Your task to perform on an android device: Open Google Chrome Image 0: 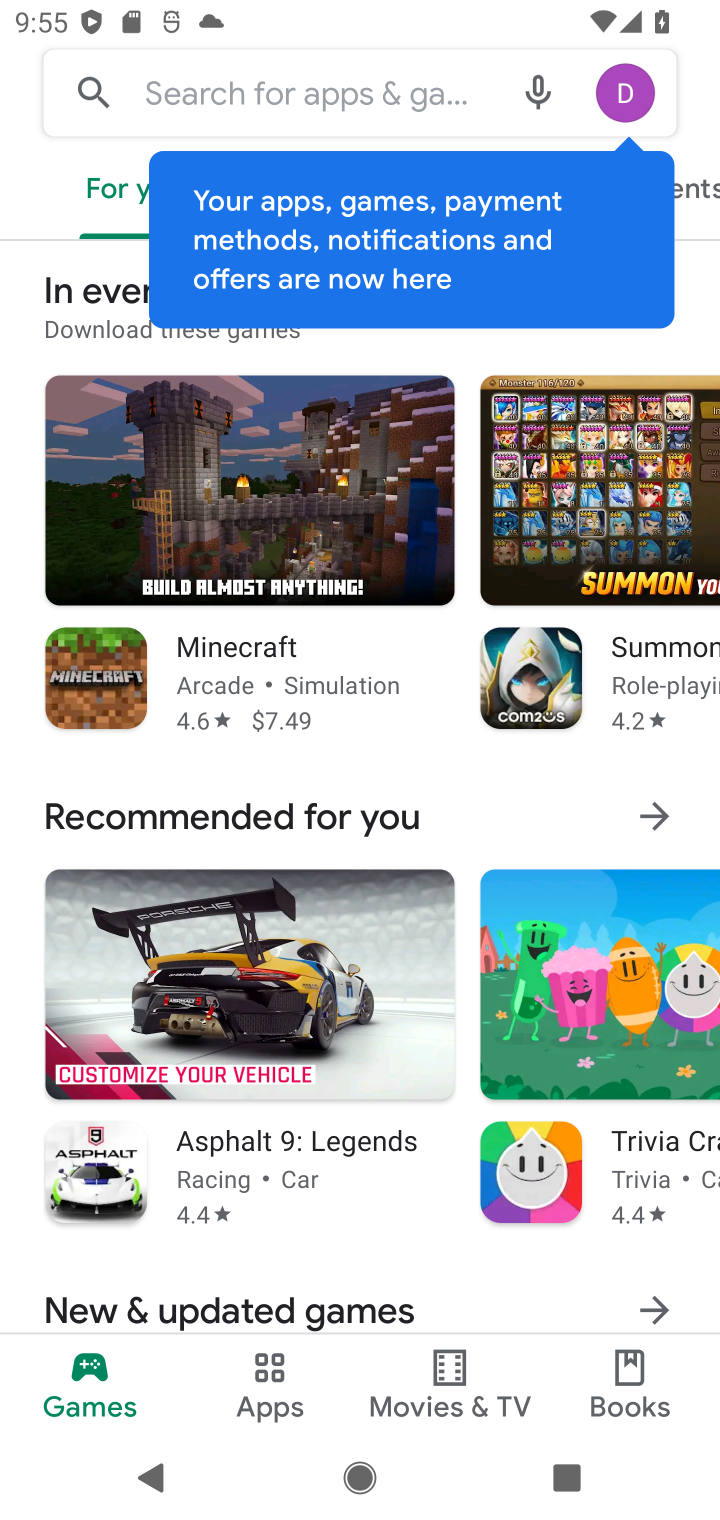
Step 0: press home button
Your task to perform on an android device: Open Google Chrome Image 1: 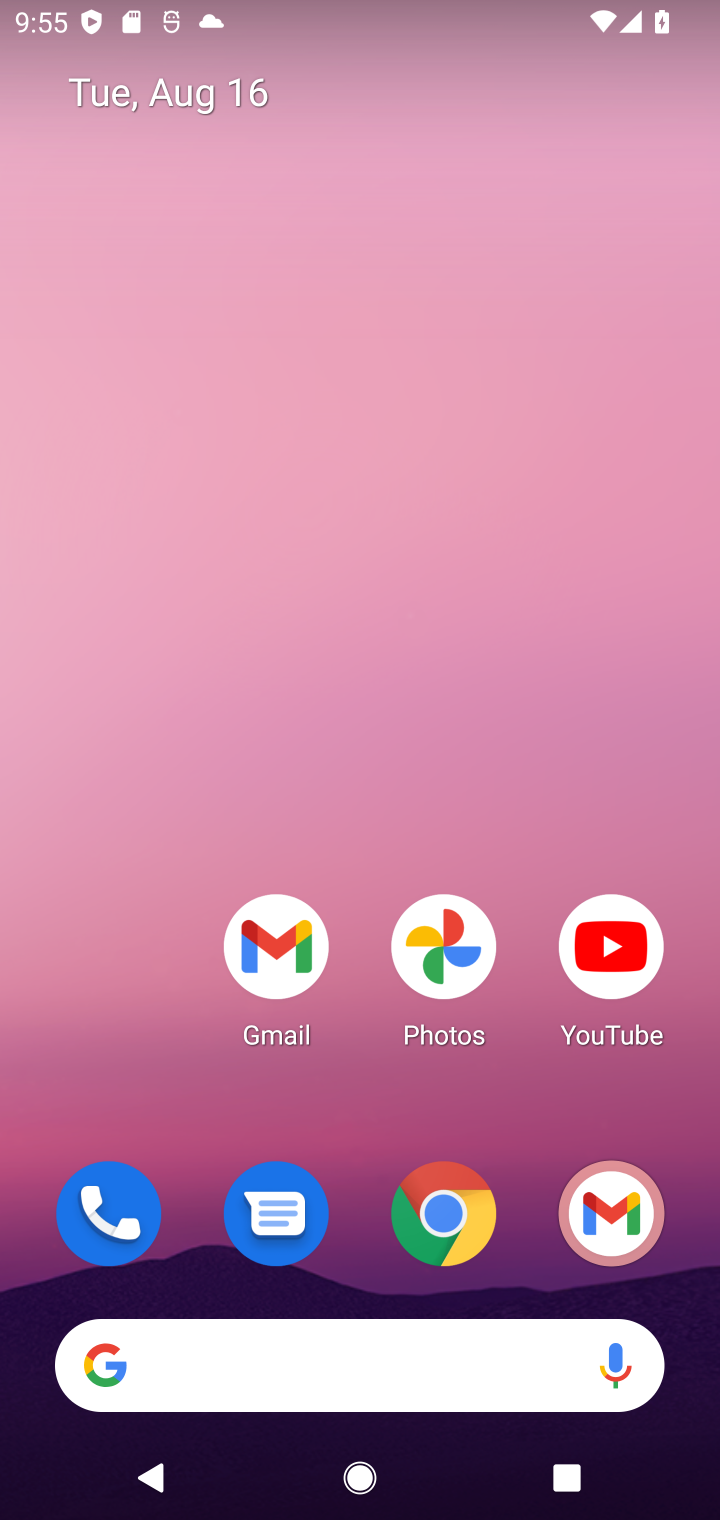
Step 1: drag from (323, 1281) to (386, 121)
Your task to perform on an android device: Open Google Chrome Image 2: 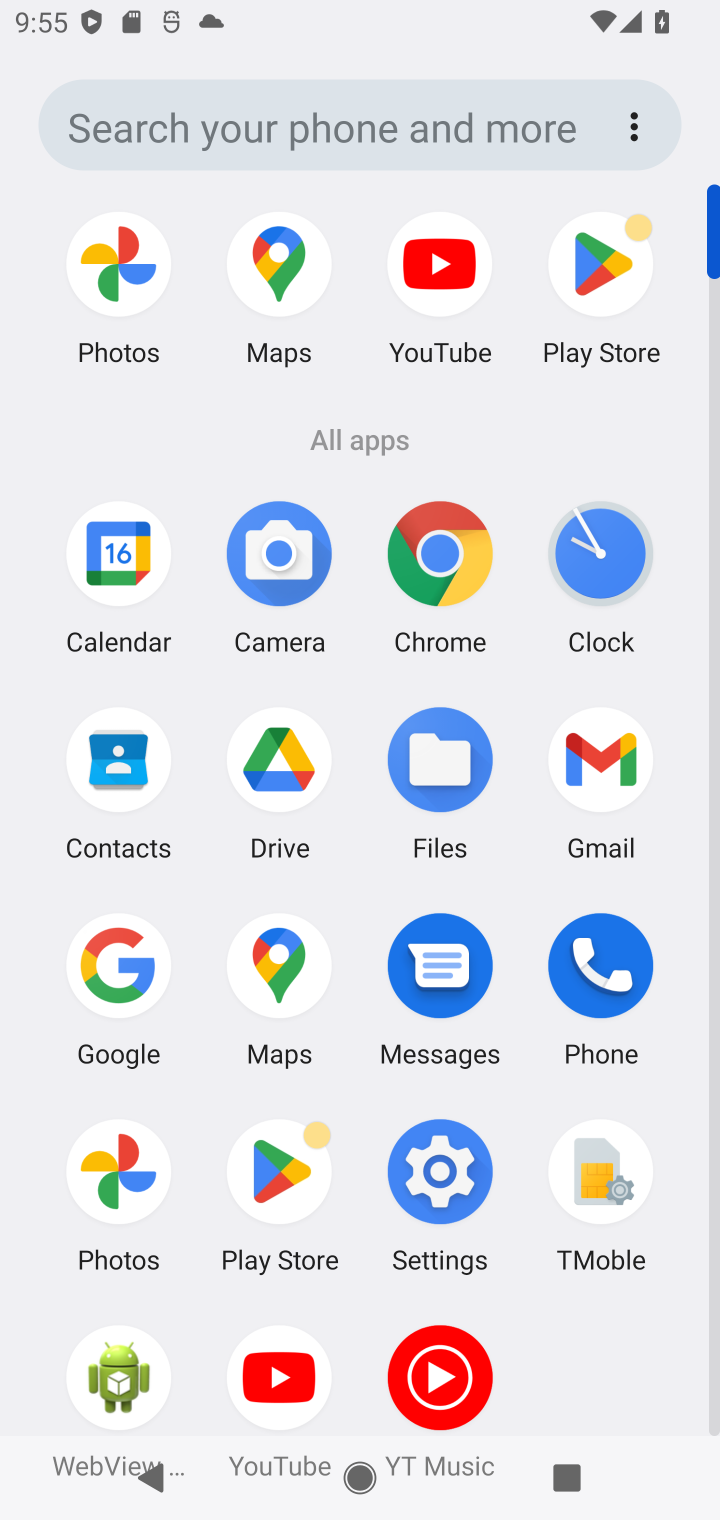
Step 2: click (440, 542)
Your task to perform on an android device: Open Google Chrome Image 3: 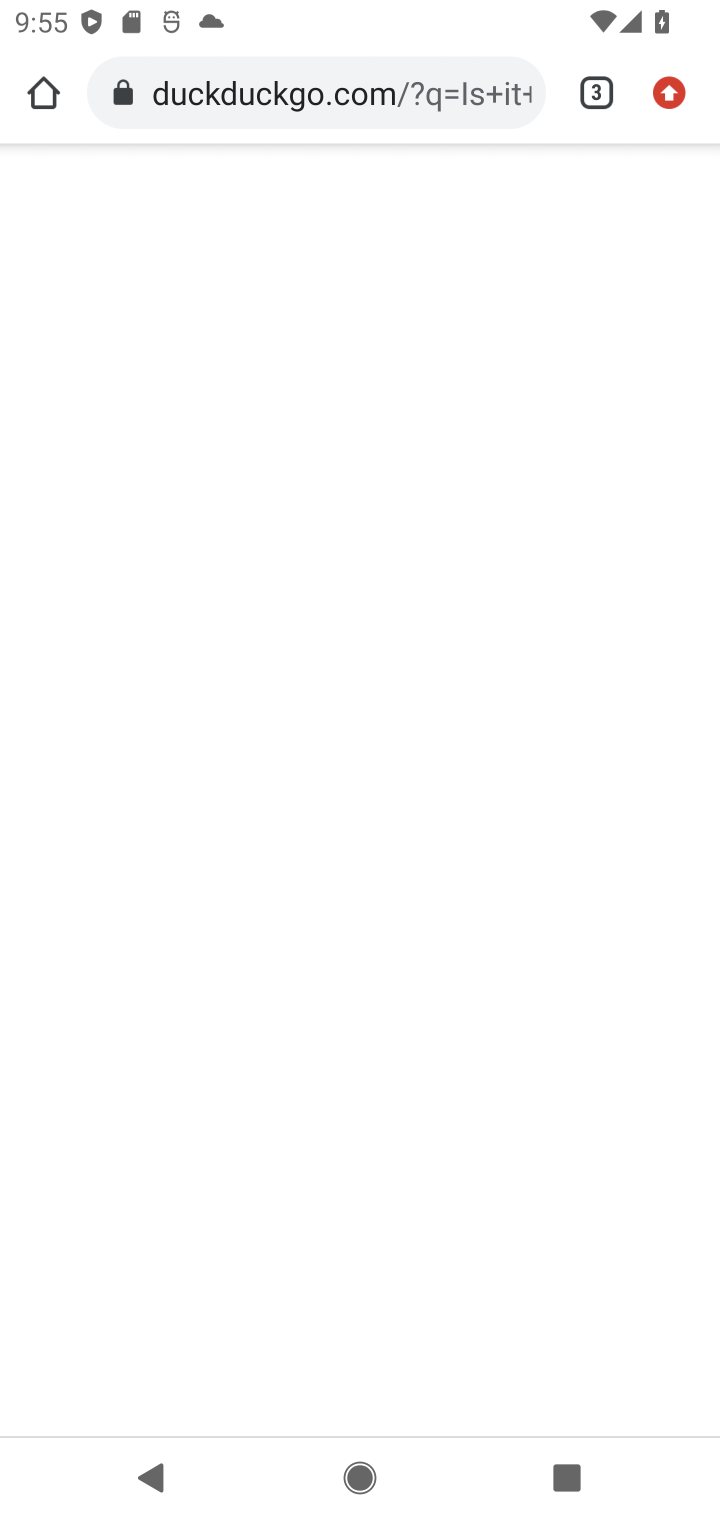
Step 3: click (632, 80)
Your task to perform on an android device: Open Google Chrome Image 4: 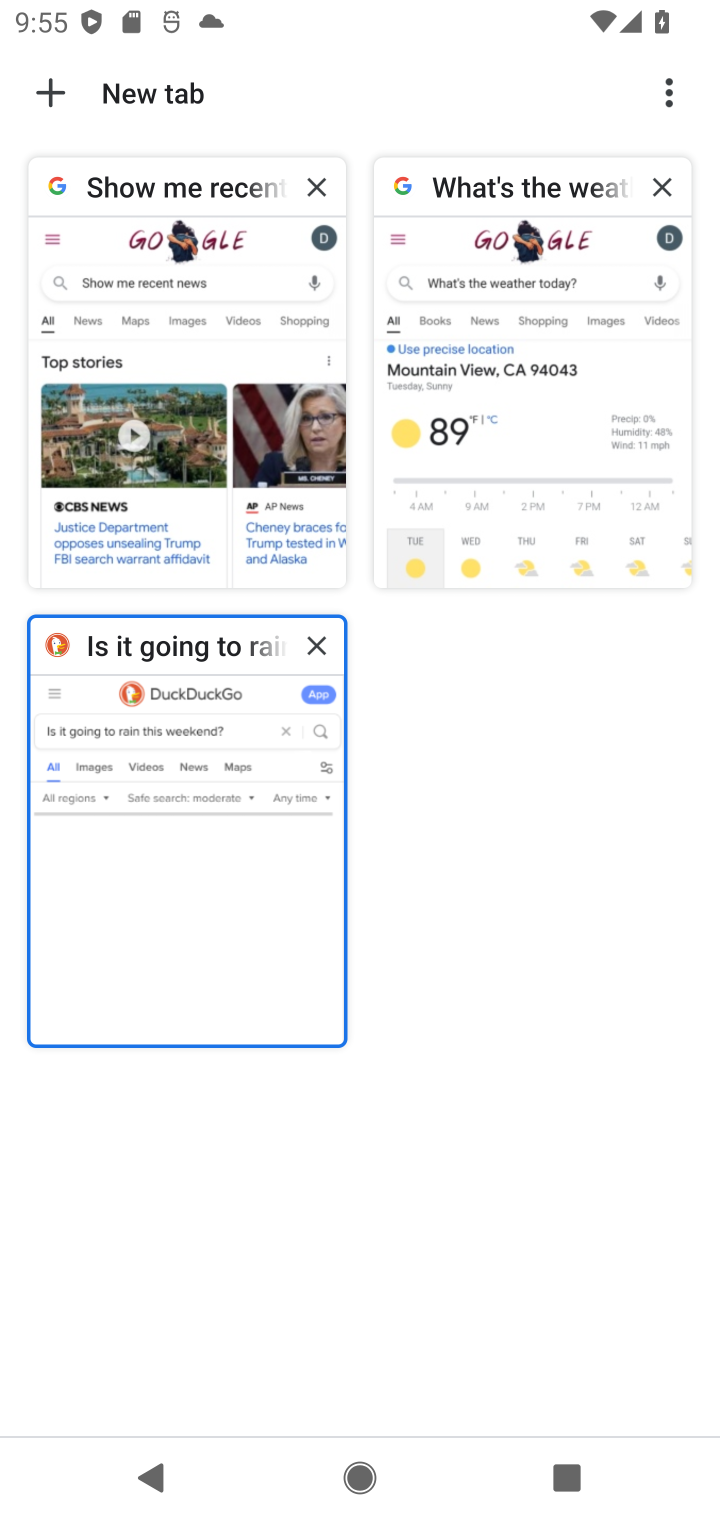
Step 4: click (46, 97)
Your task to perform on an android device: Open Google Chrome Image 5: 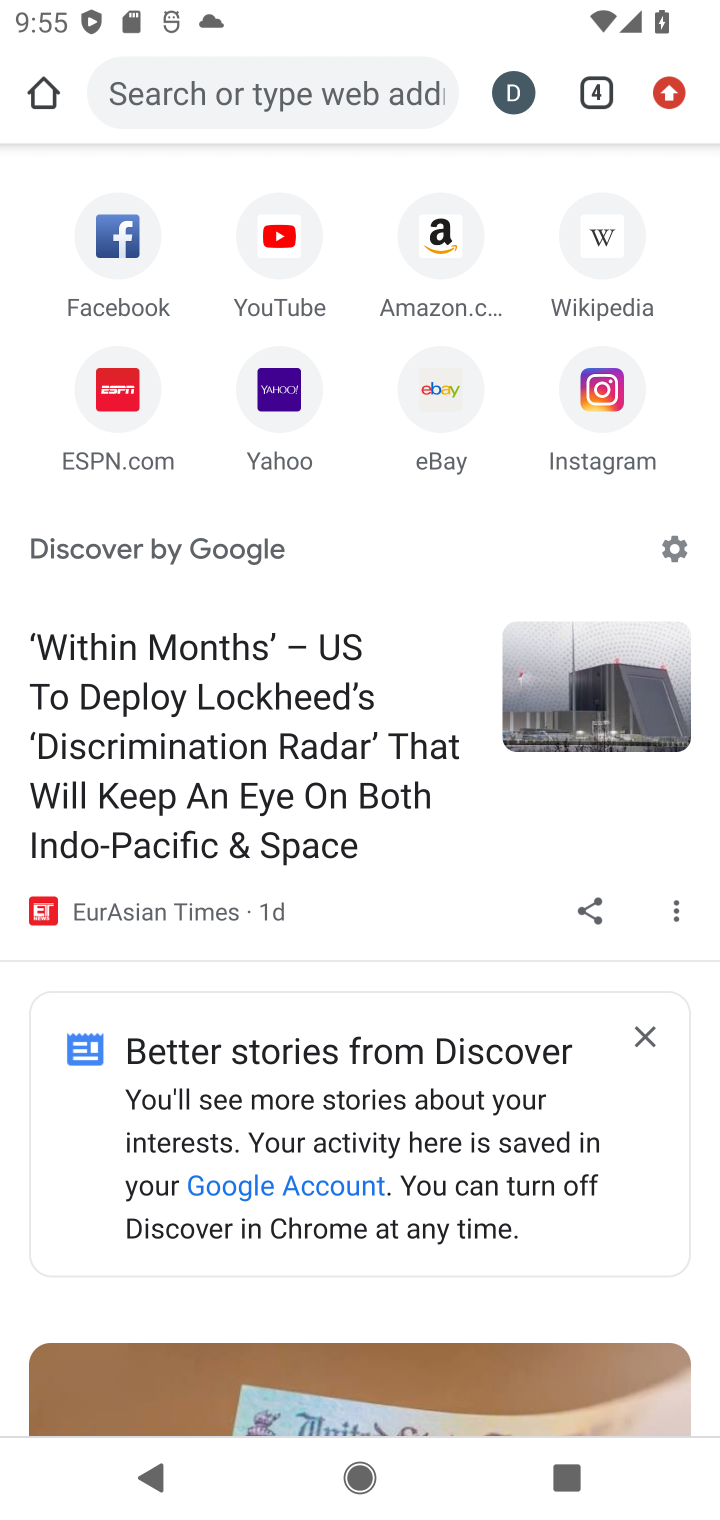
Step 5: click (195, 85)
Your task to perform on an android device: Open Google Chrome Image 6: 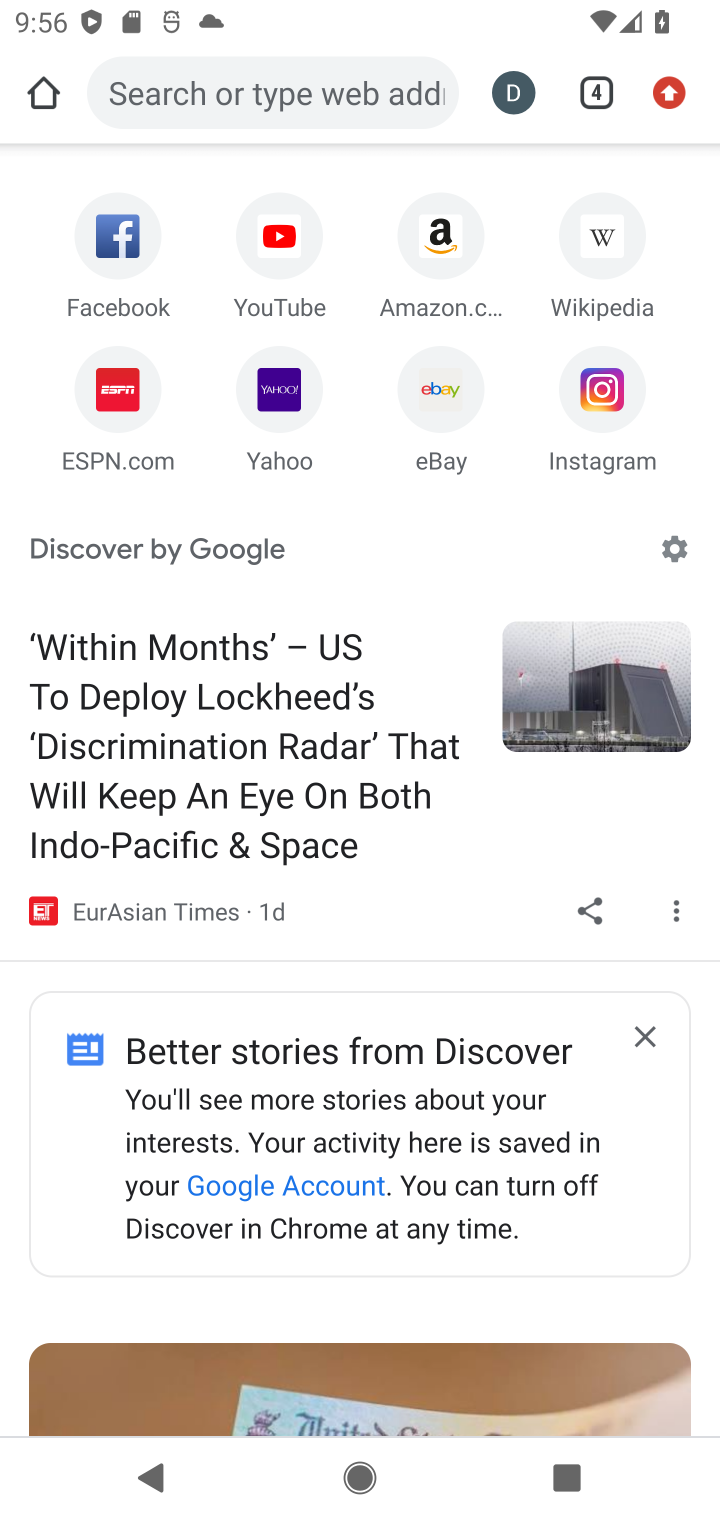
Step 6: task complete